Your task to perform on an android device: check battery use Image 0: 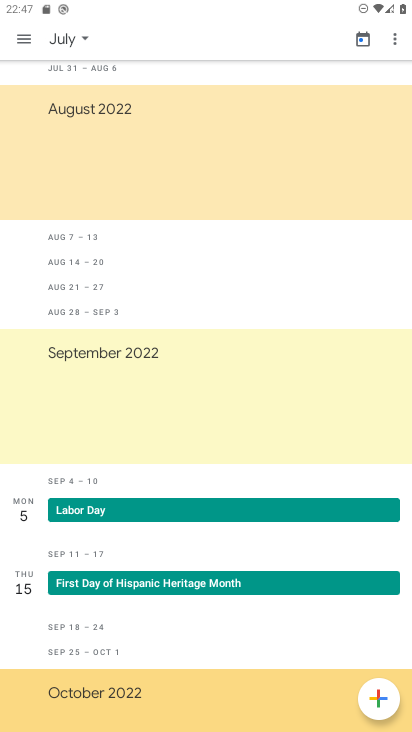
Step 0: press home button
Your task to perform on an android device: check battery use Image 1: 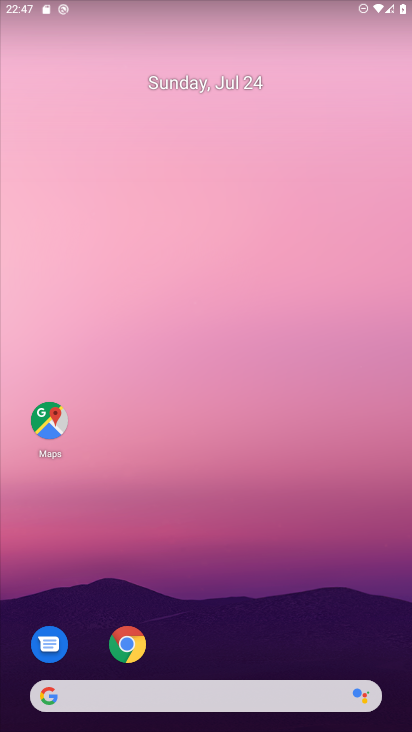
Step 1: drag from (353, 627) to (347, 38)
Your task to perform on an android device: check battery use Image 2: 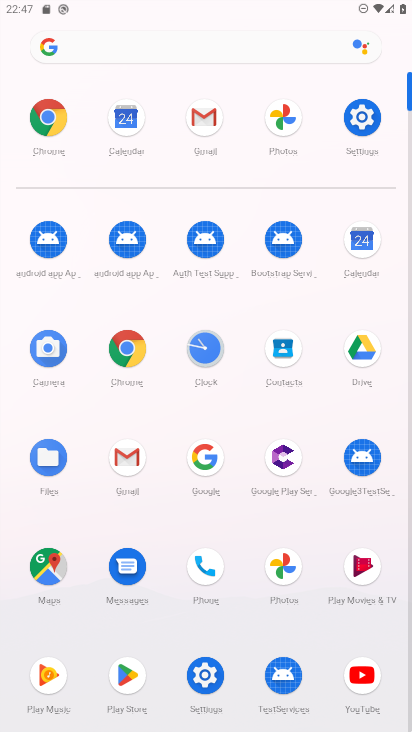
Step 2: click (207, 676)
Your task to perform on an android device: check battery use Image 3: 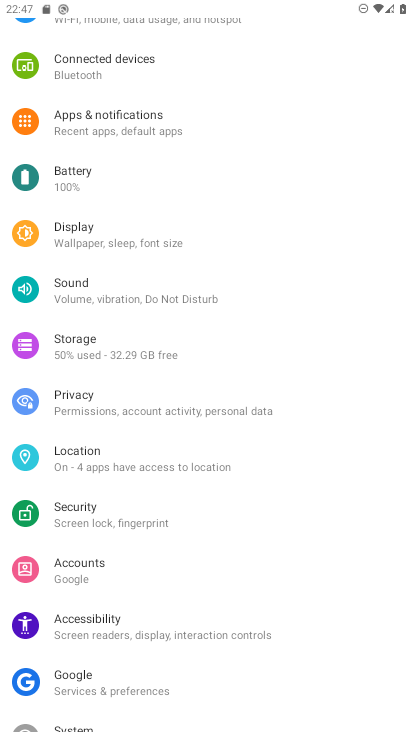
Step 3: click (69, 178)
Your task to perform on an android device: check battery use Image 4: 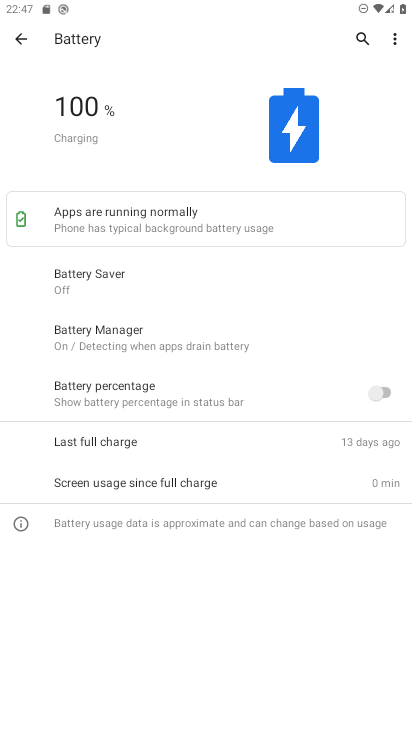
Step 4: click (394, 43)
Your task to perform on an android device: check battery use Image 5: 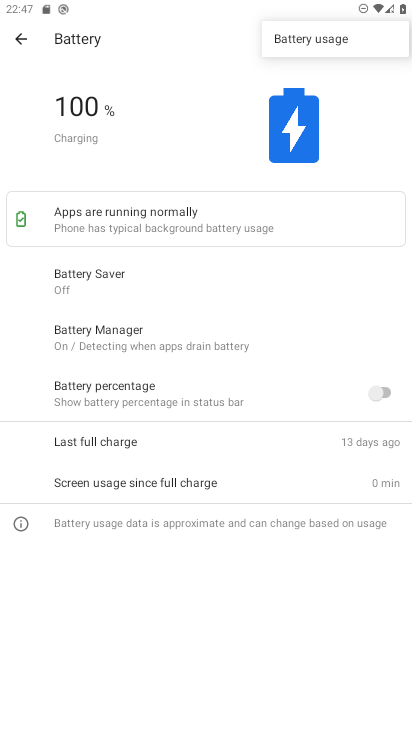
Step 5: click (288, 38)
Your task to perform on an android device: check battery use Image 6: 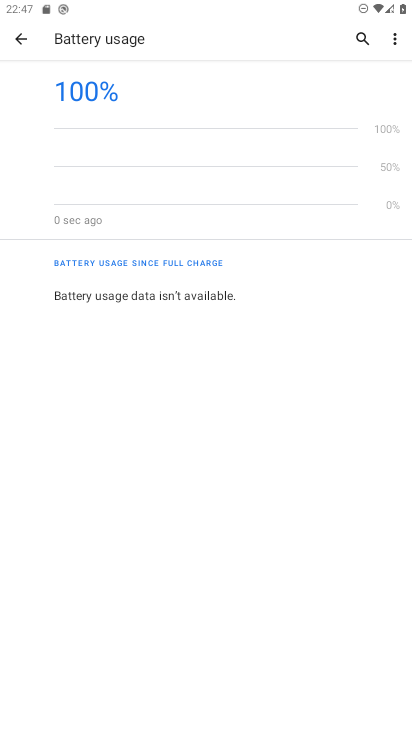
Step 6: task complete